Your task to perform on an android device: remove spam from my inbox in the gmail app Image 0: 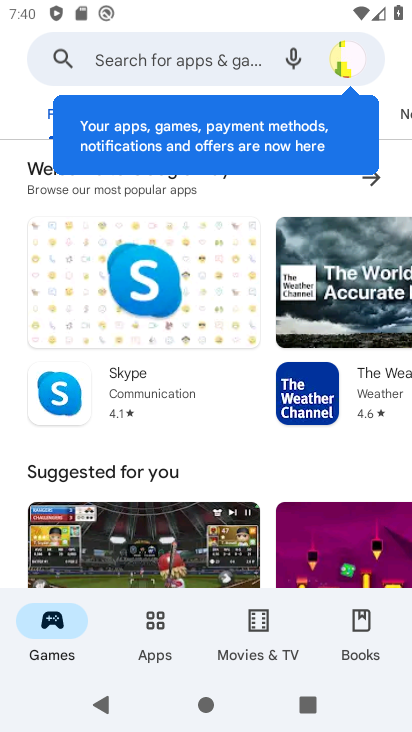
Step 0: press home button
Your task to perform on an android device: remove spam from my inbox in the gmail app Image 1: 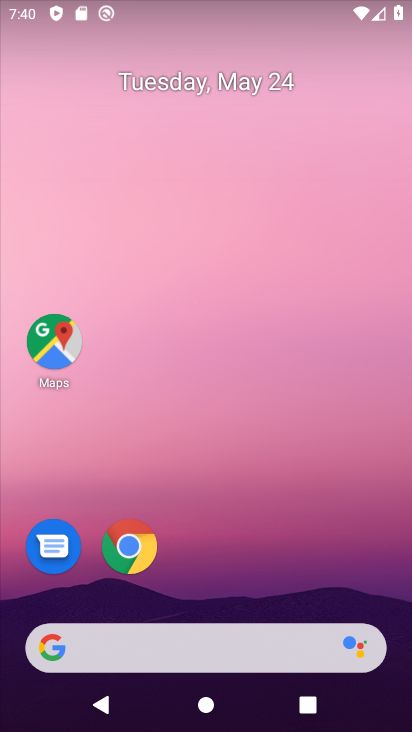
Step 1: drag from (275, 548) to (291, 26)
Your task to perform on an android device: remove spam from my inbox in the gmail app Image 2: 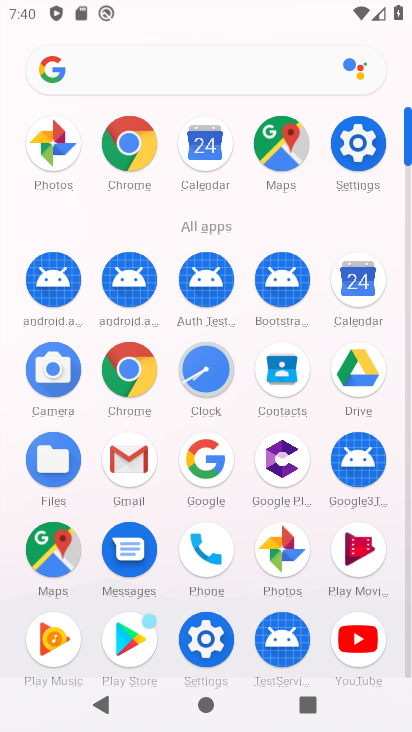
Step 2: click (126, 465)
Your task to perform on an android device: remove spam from my inbox in the gmail app Image 3: 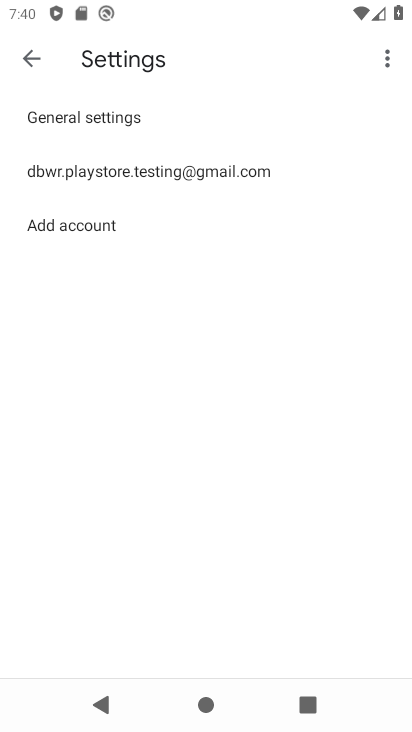
Step 3: click (29, 52)
Your task to perform on an android device: remove spam from my inbox in the gmail app Image 4: 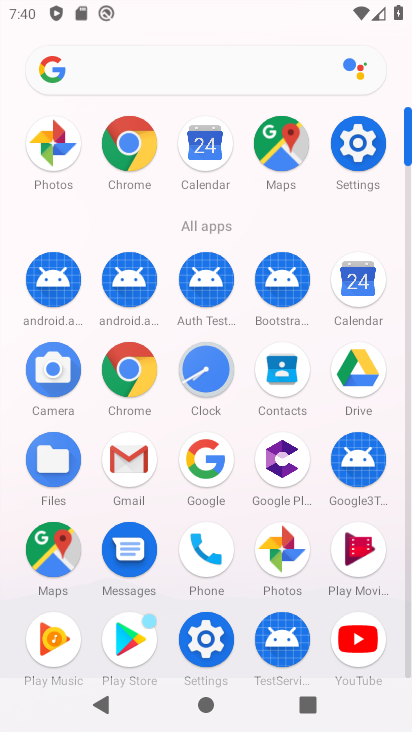
Step 4: click (122, 454)
Your task to perform on an android device: remove spam from my inbox in the gmail app Image 5: 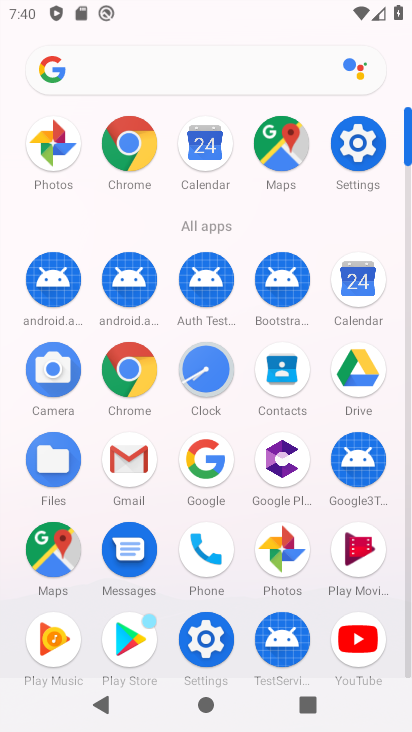
Step 5: click (125, 463)
Your task to perform on an android device: remove spam from my inbox in the gmail app Image 6: 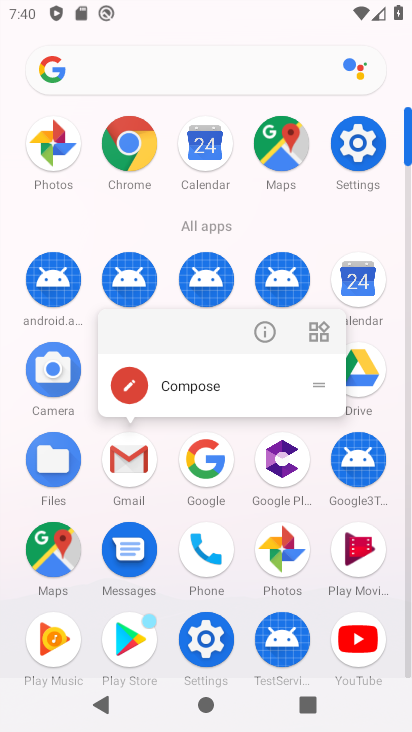
Step 6: click (125, 463)
Your task to perform on an android device: remove spam from my inbox in the gmail app Image 7: 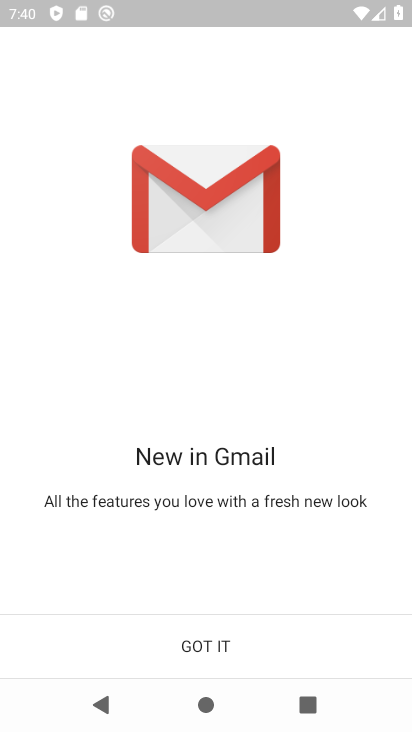
Step 7: click (228, 642)
Your task to perform on an android device: remove spam from my inbox in the gmail app Image 8: 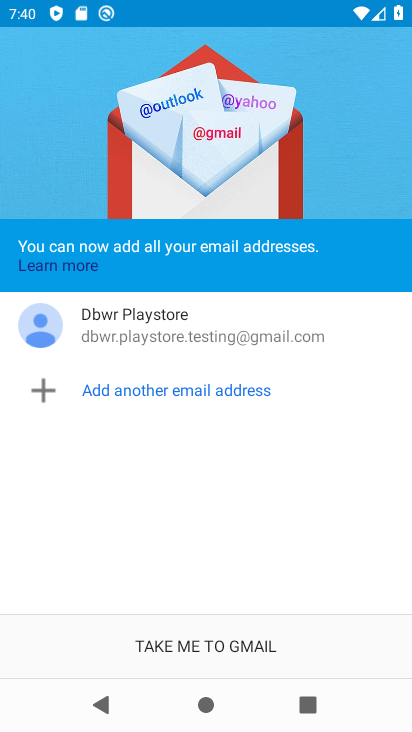
Step 8: click (228, 642)
Your task to perform on an android device: remove spam from my inbox in the gmail app Image 9: 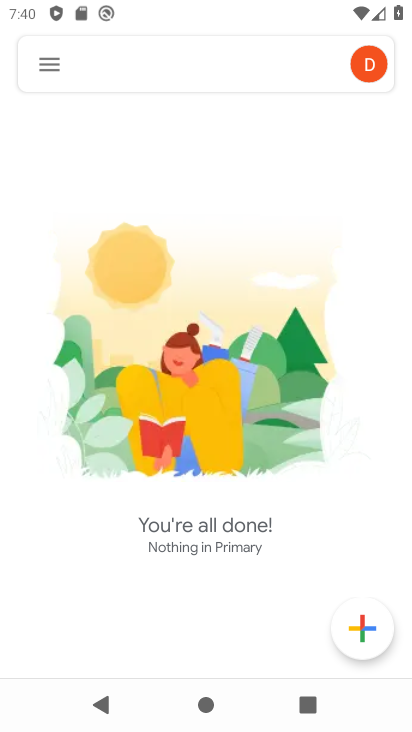
Step 9: click (49, 62)
Your task to perform on an android device: remove spam from my inbox in the gmail app Image 10: 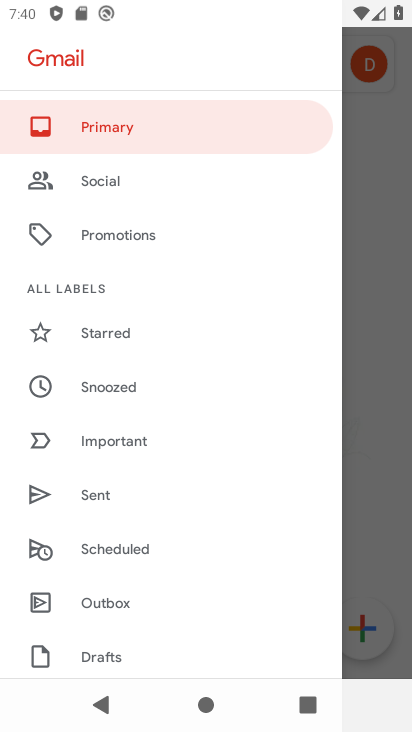
Step 10: drag from (176, 551) to (196, 122)
Your task to perform on an android device: remove spam from my inbox in the gmail app Image 11: 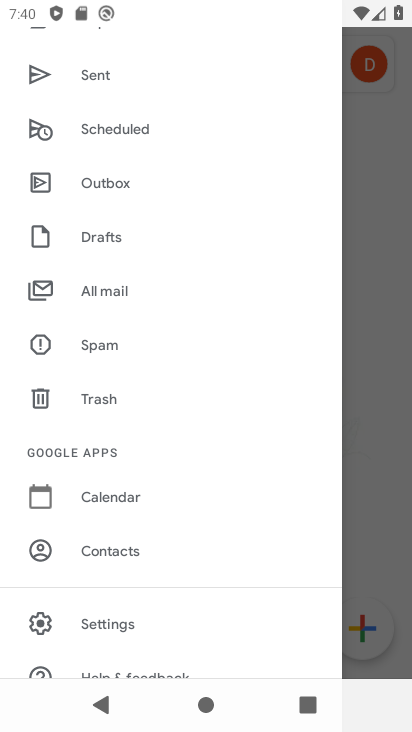
Step 11: click (116, 335)
Your task to perform on an android device: remove spam from my inbox in the gmail app Image 12: 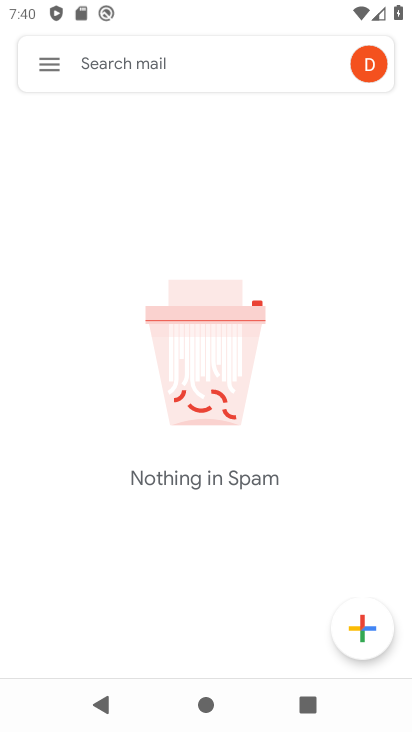
Step 12: task complete